Your task to perform on an android device: turn off wifi Image 0: 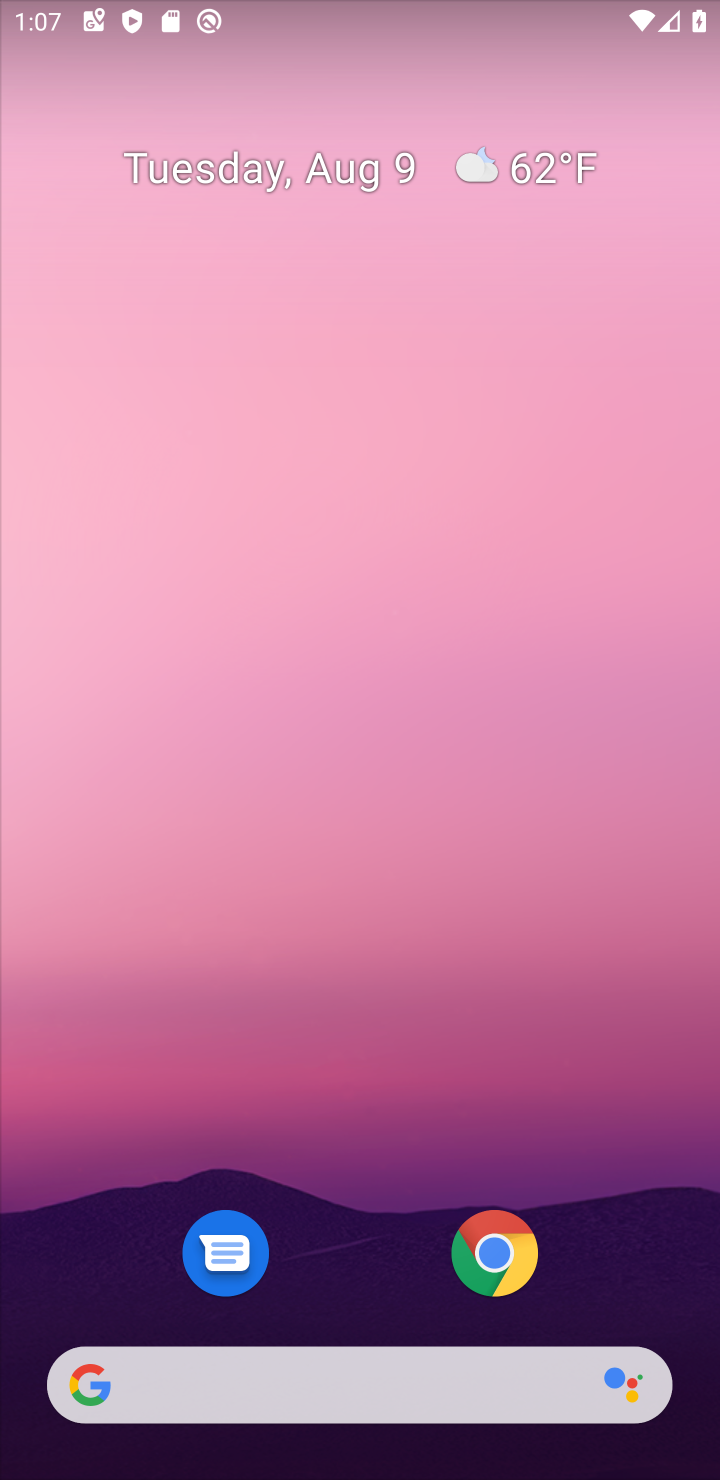
Step 0: drag from (671, 1279) to (123, 72)
Your task to perform on an android device: turn off wifi Image 1: 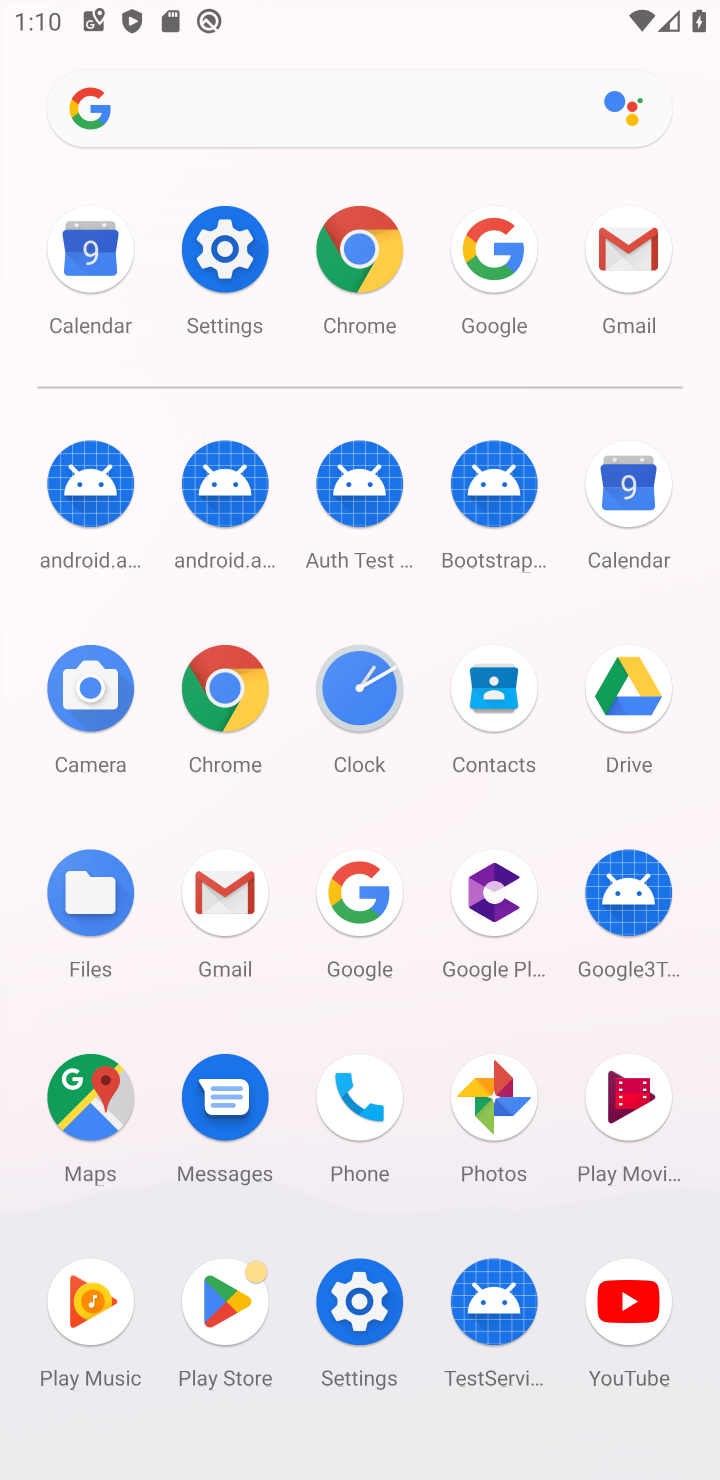
Step 1: drag from (383, 22) to (505, 1320)
Your task to perform on an android device: turn off wifi Image 2: 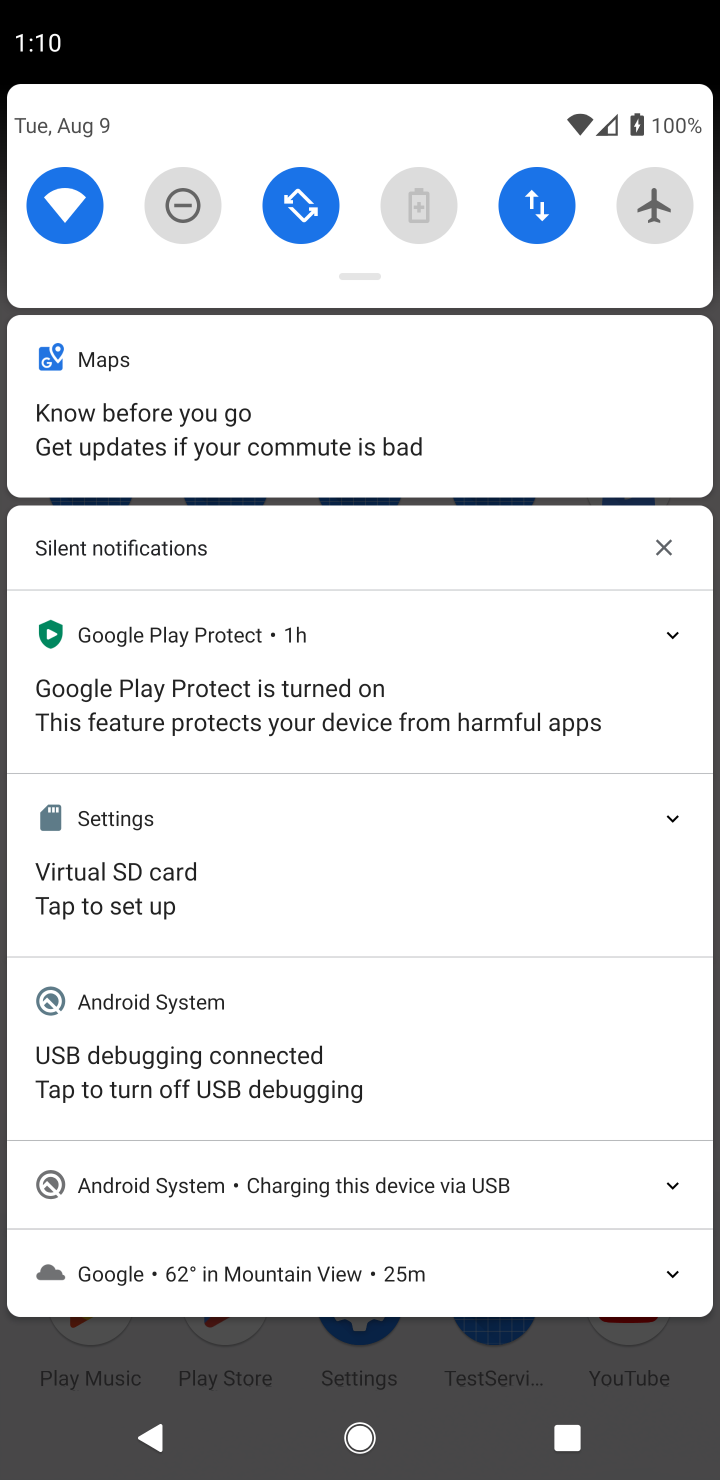
Step 2: click (70, 202)
Your task to perform on an android device: turn off wifi Image 3: 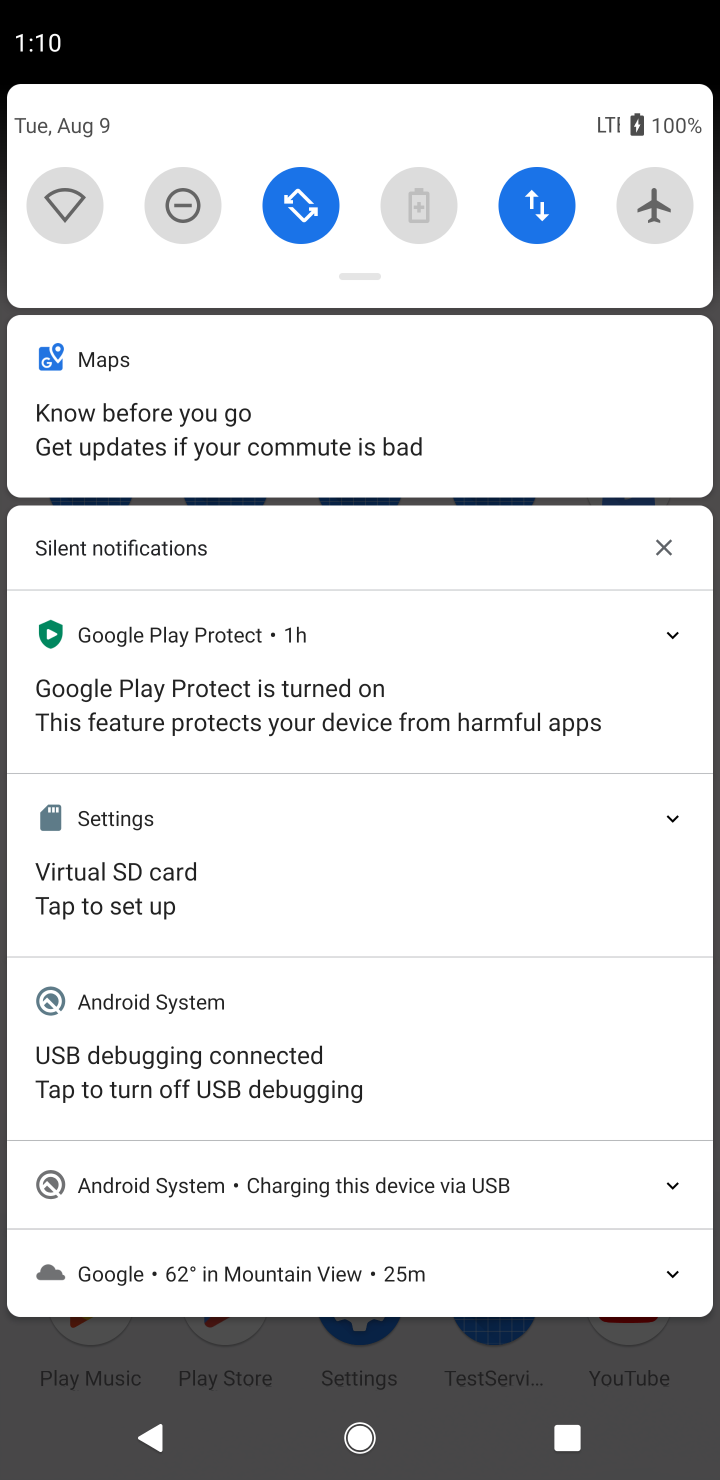
Step 3: task complete